Your task to perform on an android device: Open Google Maps and go to "Timeline" Image 0: 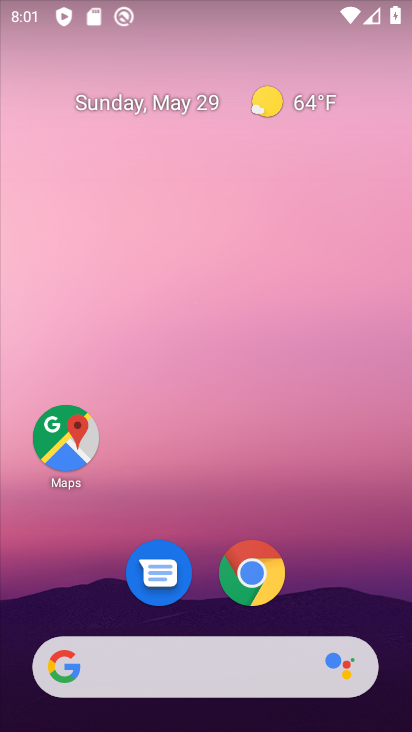
Step 0: click (121, 120)
Your task to perform on an android device: Open Google Maps and go to "Timeline" Image 1: 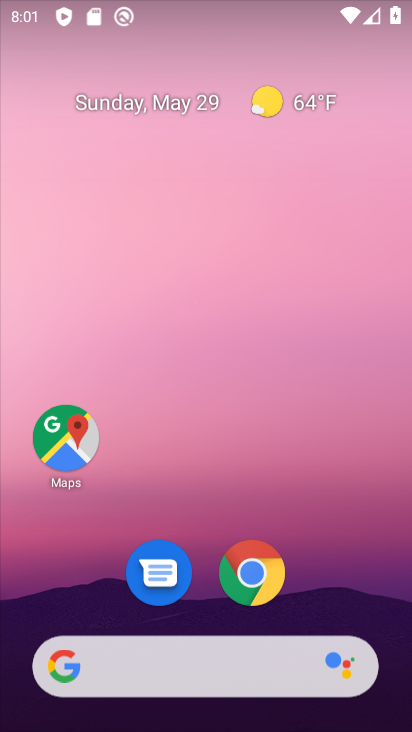
Step 1: click (49, 19)
Your task to perform on an android device: Open Google Maps and go to "Timeline" Image 2: 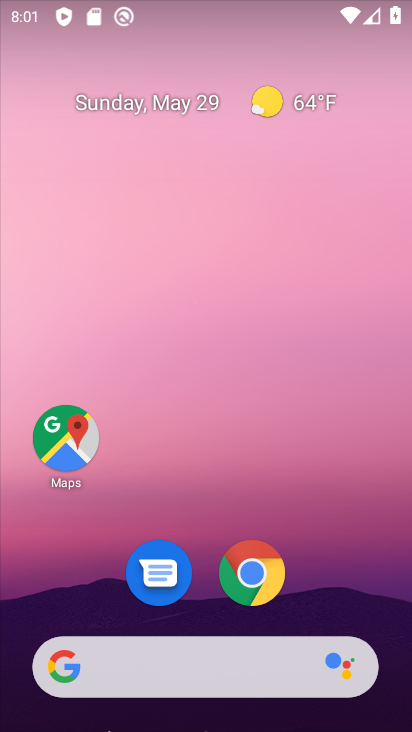
Step 2: drag from (179, 290) to (156, 88)
Your task to perform on an android device: Open Google Maps and go to "Timeline" Image 3: 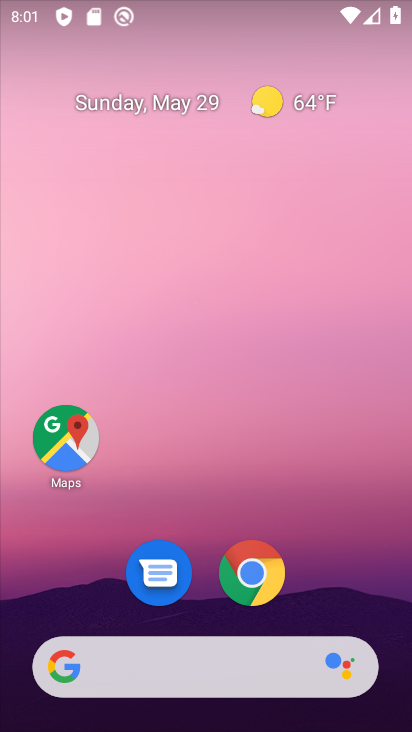
Step 3: drag from (218, 664) to (221, 83)
Your task to perform on an android device: Open Google Maps and go to "Timeline" Image 4: 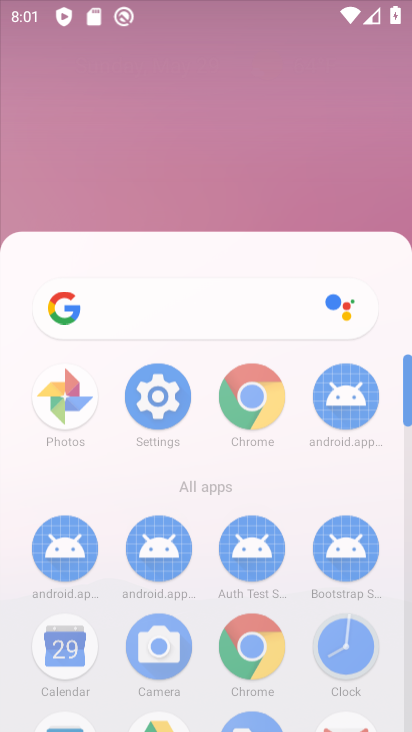
Step 4: drag from (179, 234) to (198, 91)
Your task to perform on an android device: Open Google Maps and go to "Timeline" Image 5: 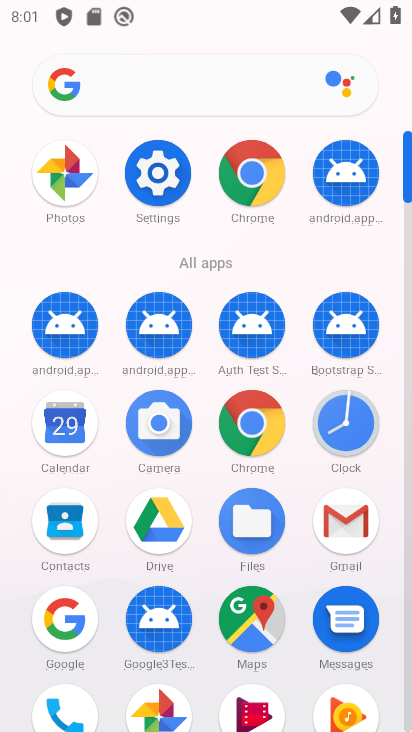
Step 5: drag from (238, 383) to (110, 0)
Your task to perform on an android device: Open Google Maps and go to "Timeline" Image 6: 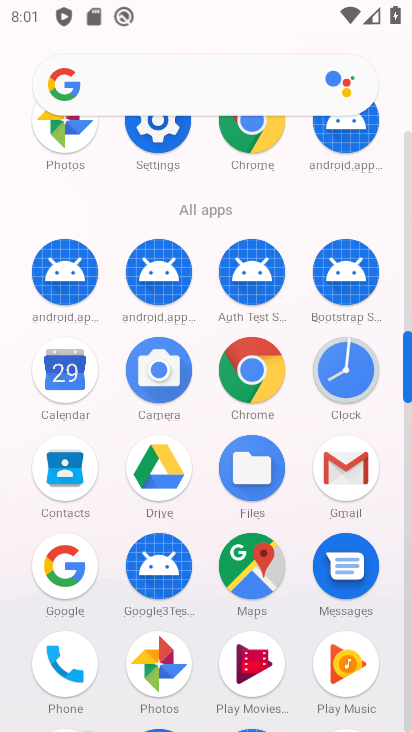
Step 6: drag from (163, 282) to (149, 14)
Your task to perform on an android device: Open Google Maps and go to "Timeline" Image 7: 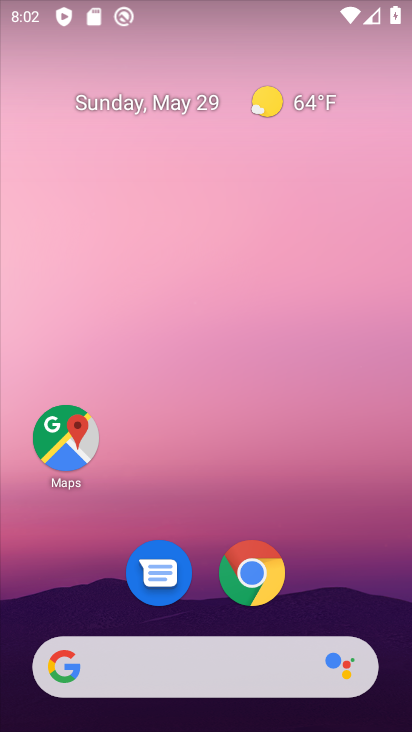
Step 7: drag from (191, 322) to (161, 127)
Your task to perform on an android device: Open Google Maps and go to "Timeline" Image 8: 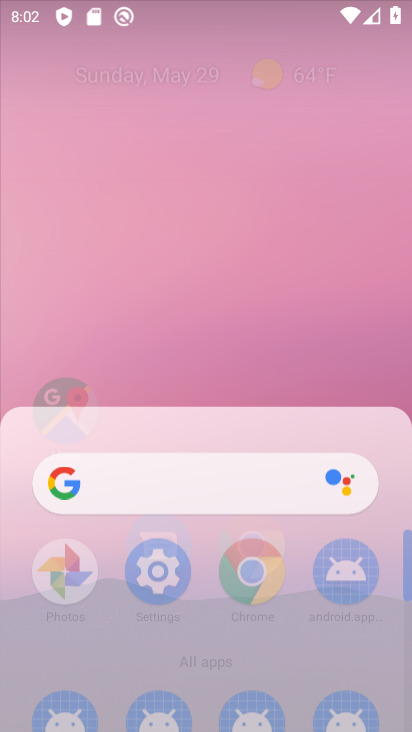
Step 8: drag from (214, 231) to (174, 66)
Your task to perform on an android device: Open Google Maps and go to "Timeline" Image 9: 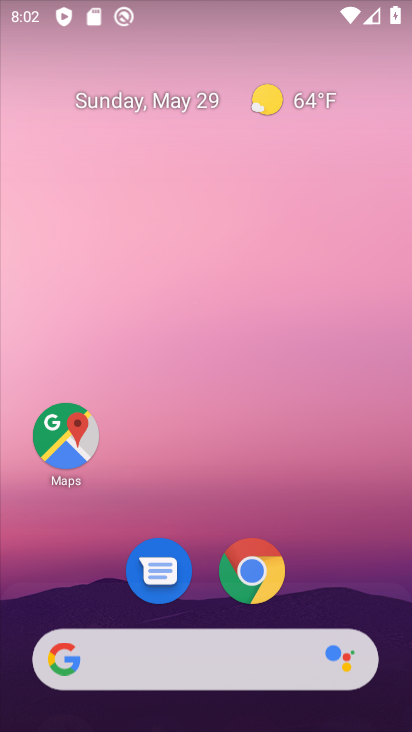
Step 9: drag from (255, 575) to (198, 14)
Your task to perform on an android device: Open Google Maps and go to "Timeline" Image 10: 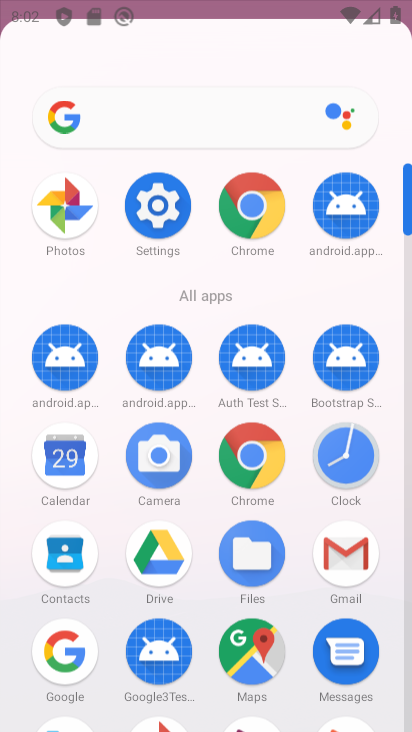
Step 10: drag from (181, 470) to (99, 36)
Your task to perform on an android device: Open Google Maps and go to "Timeline" Image 11: 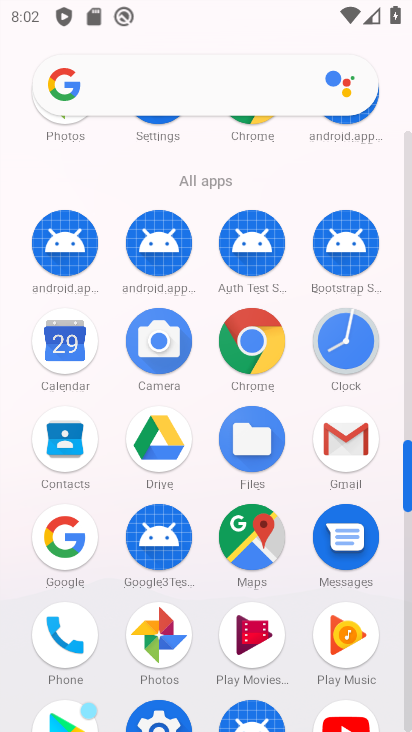
Step 11: drag from (207, 432) to (169, 143)
Your task to perform on an android device: Open Google Maps and go to "Timeline" Image 12: 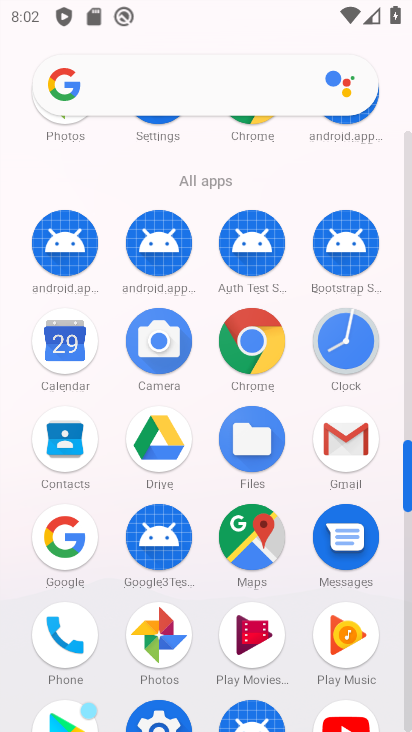
Step 12: click (254, 538)
Your task to perform on an android device: Open Google Maps and go to "Timeline" Image 13: 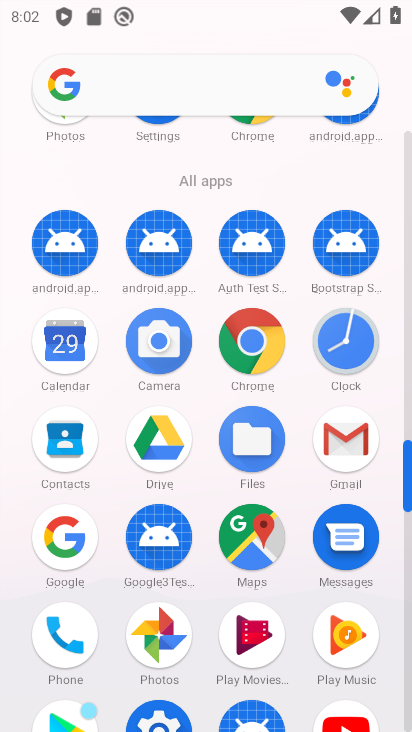
Step 13: click (255, 539)
Your task to perform on an android device: Open Google Maps and go to "Timeline" Image 14: 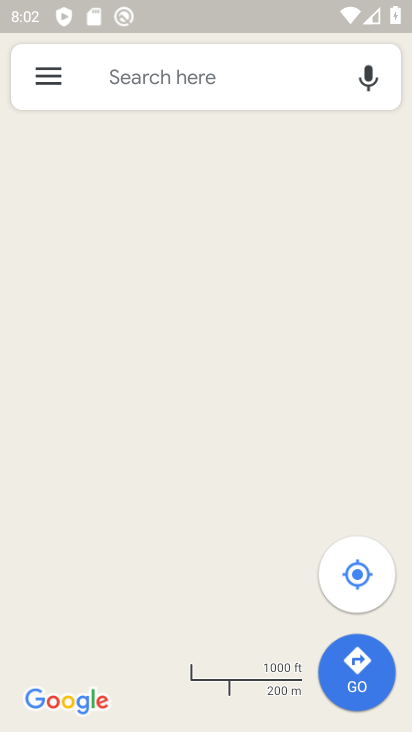
Step 14: click (58, 81)
Your task to perform on an android device: Open Google Maps and go to "Timeline" Image 15: 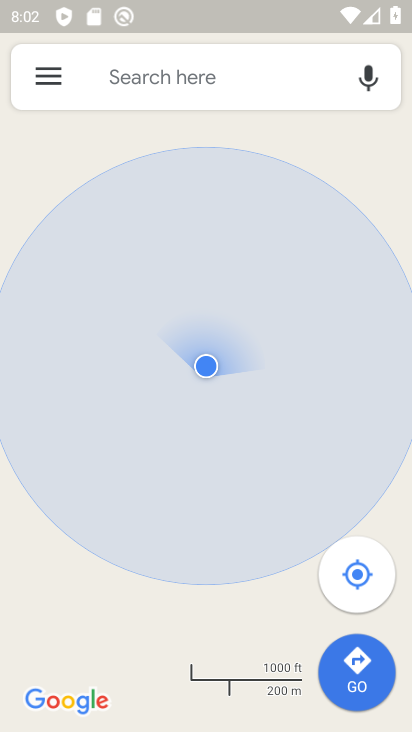
Step 15: click (58, 81)
Your task to perform on an android device: Open Google Maps and go to "Timeline" Image 16: 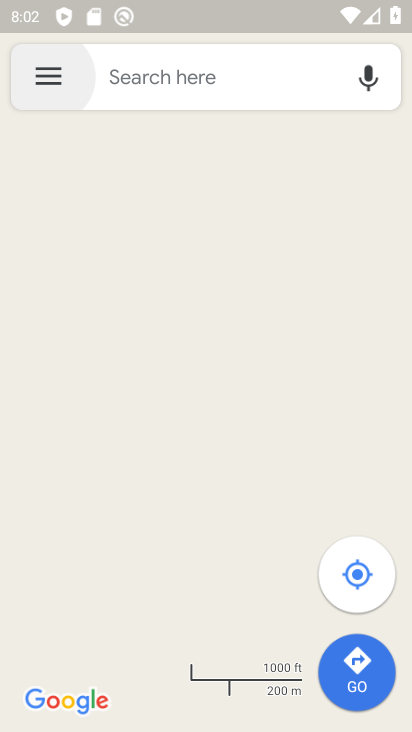
Step 16: click (51, 90)
Your task to perform on an android device: Open Google Maps and go to "Timeline" Image 17: 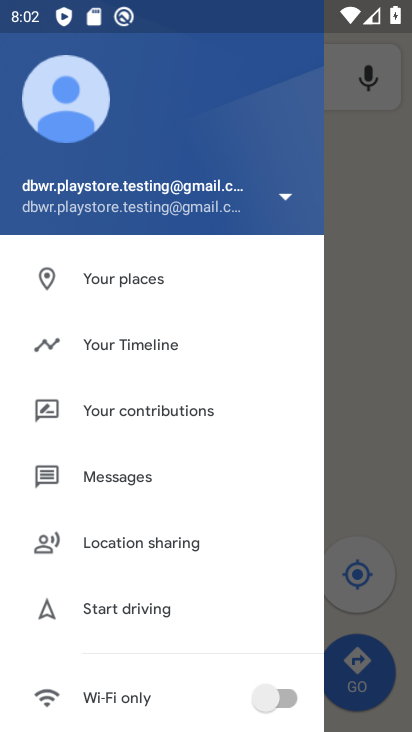
Step 17: click (141, 343)
Your task to perform on an android device: Open Google Maps and go to "Timeline" Image 18: 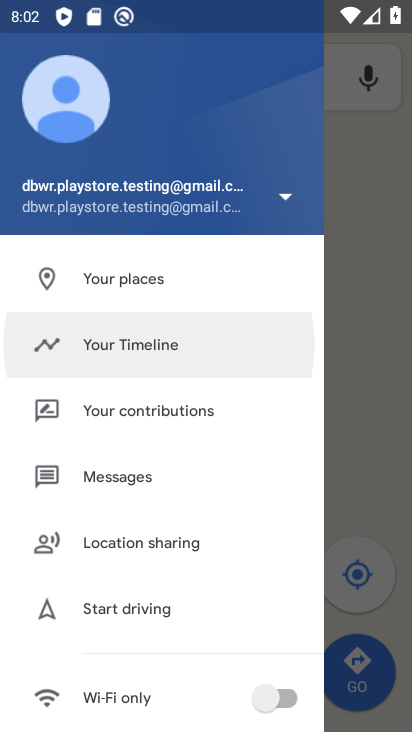
Step 18: click (142, 342)
Your task to perform on an android device: Open Google Maps and go to "Timeline" Image 19: 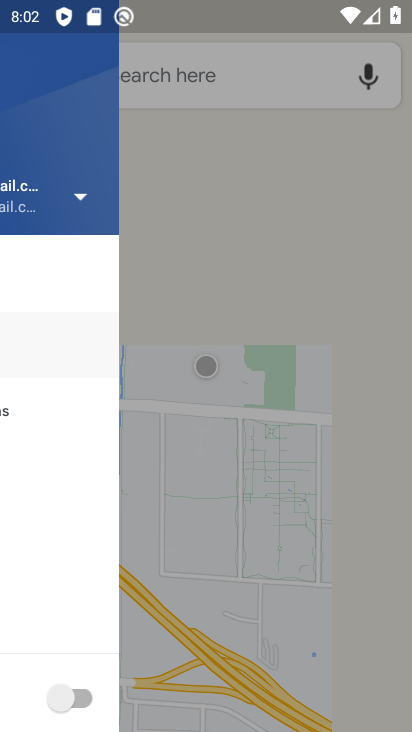
Step 19: click (144, 364)
Your task to perform on an android device: Open Google Maps and go to "Timeline" Image 20: 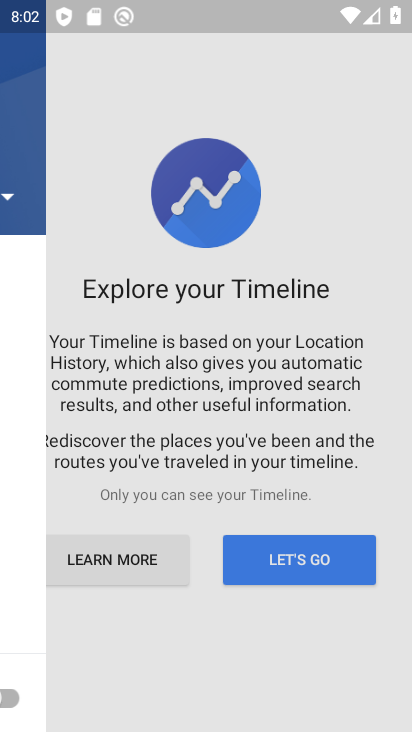
Step 20: click (144, 365)
Your task to perform on an android device: Open Google Maps and go to "Timeline" Image 21: 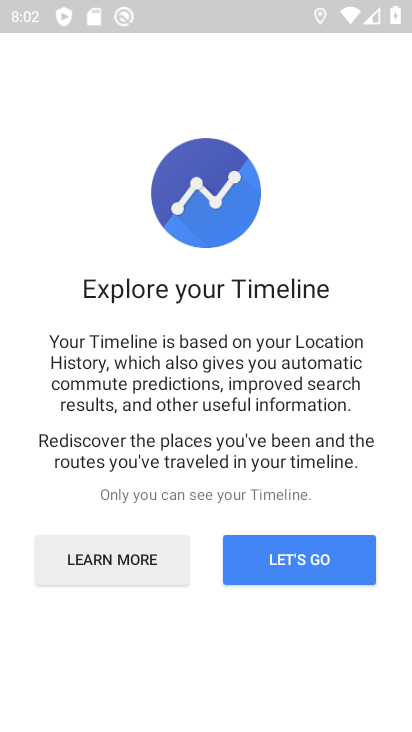
Step 21: click (301, 568)
Your task to perform on an android device: Open Google Maps and go to "Timeline" Image 22: 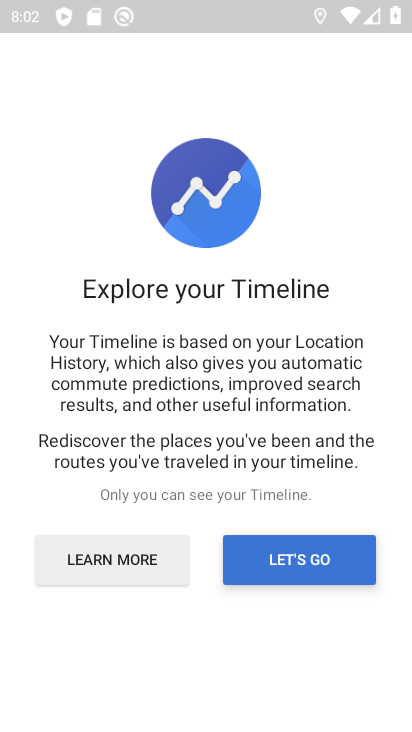
Step 22: click (301, 568)
Your task to perform on an android device: Open Google Maps and go to "Timeline" Image 23: 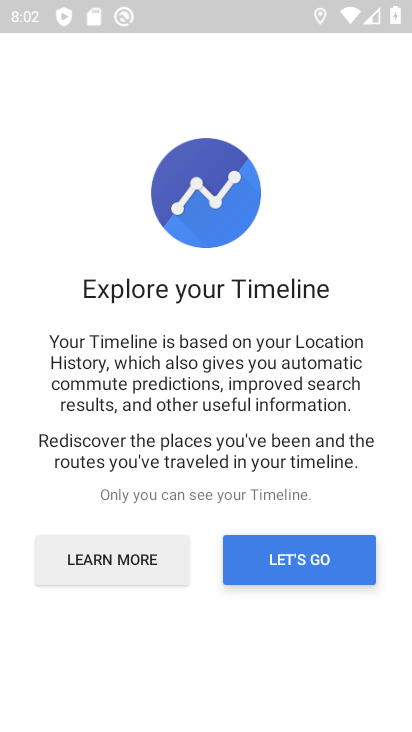
Step 23: click (300, 569)
Your task to perform on an android device: Open Google Maps and go to "Timeline" Image 24: 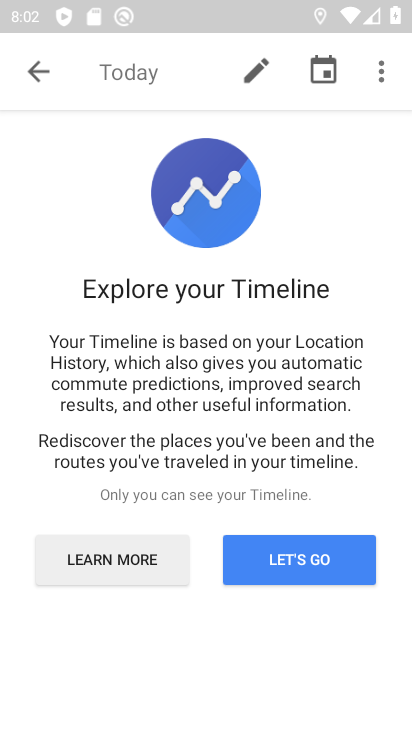
Step 24: click (299, 570)
Your task to perform on an android device: Open Google Maps and go to "Timeline" Image 25: 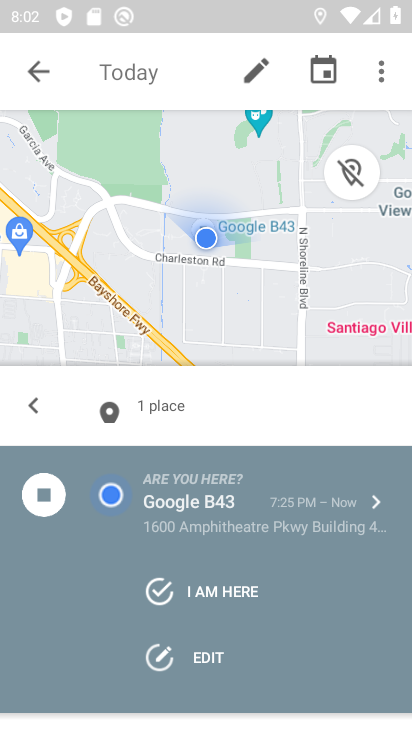
Step 25: task complete